Your task to perform on an android device: turn off sleep mode Image 0: 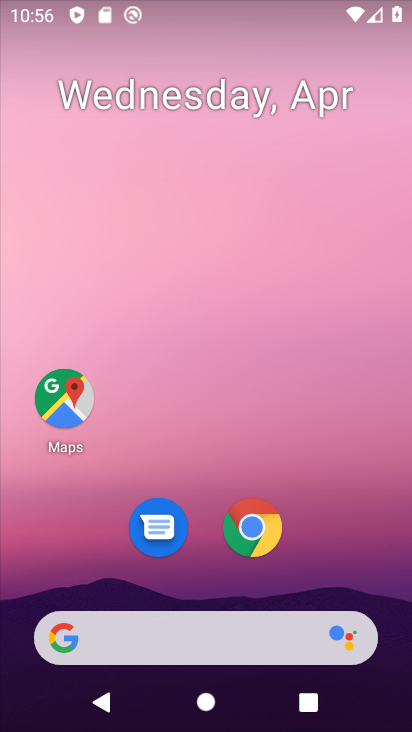
Step 0: drag from (187, 549) to (200, 149)
Your task to perform on an android device: turn off sleep mode Image 1: 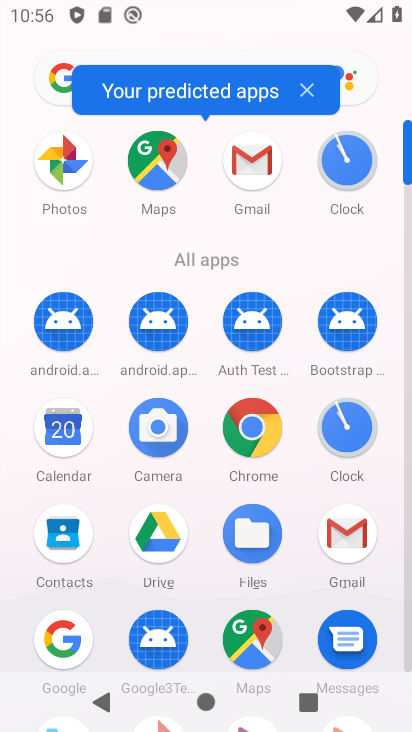
Step 1: drag from (182, 575) to (138, 148)
Your task to perform on an android device: turn off sleep mode Image 2: 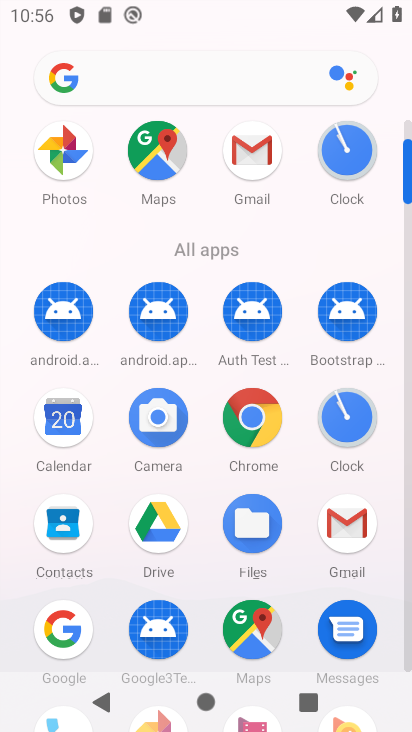
Step 2: drag from (208, 690) to (212, 358)
Your task to perform on an android device: turn off sleep mode Image 3: 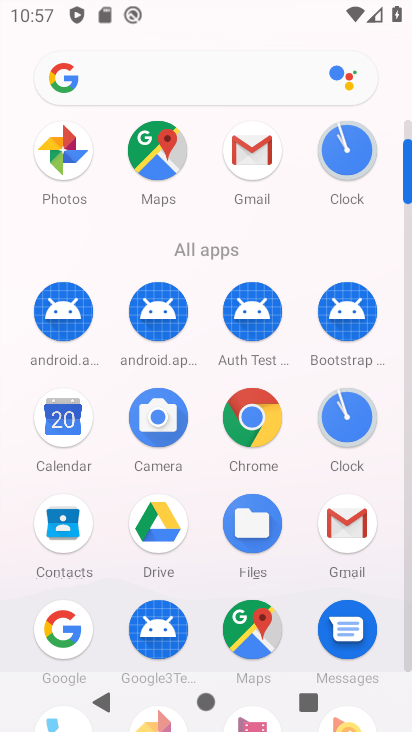
Step 3: drag from (110, 599) to (139, 276)
Your task to perform on an android device: turn off sleep mode Image 4: 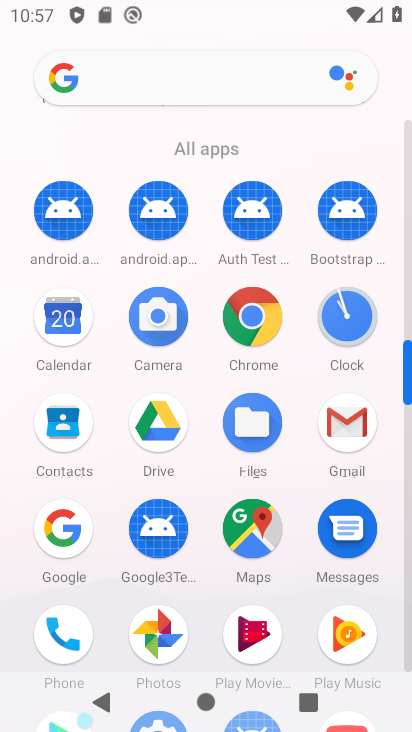
Step 4: drag from (208, 652) to (280, 224)
Your task to perform on an android device: turn off sleep mode Image 5: 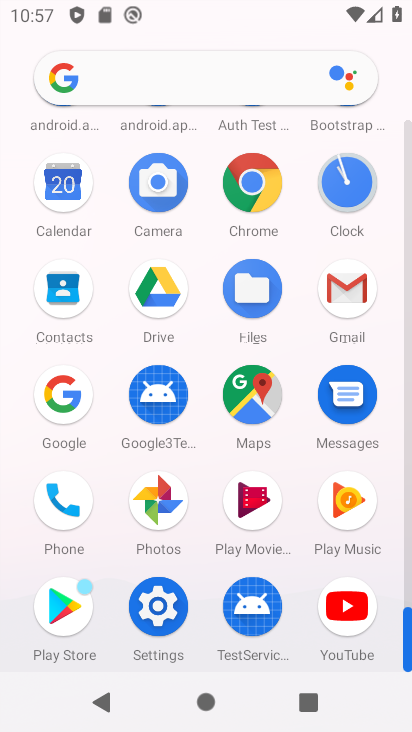
Step 5: click (140, 601)
Your task to perform on an android device: turn off sleep mode Image 6: 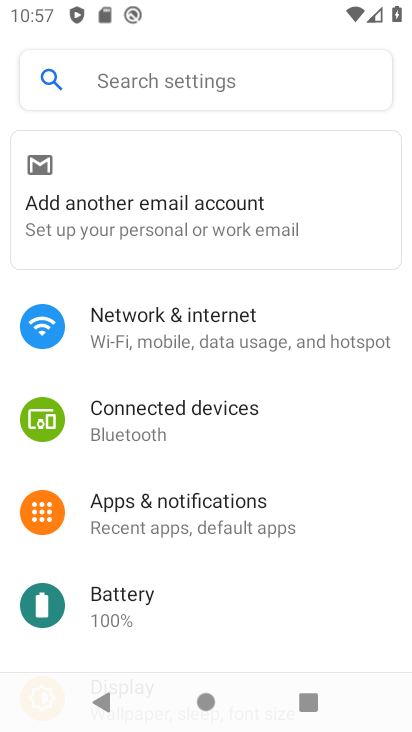
Step 6: drag from (242, 595) to (269, 335)
Your task to perform on an android device: turn off sleep mode Image 7: 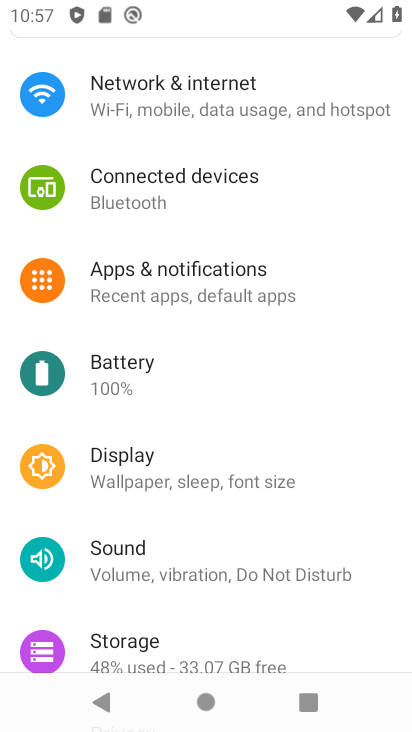
Step 7: click (193, 485)
Your task to perform on an android device: turn off sleep mode Image 8: 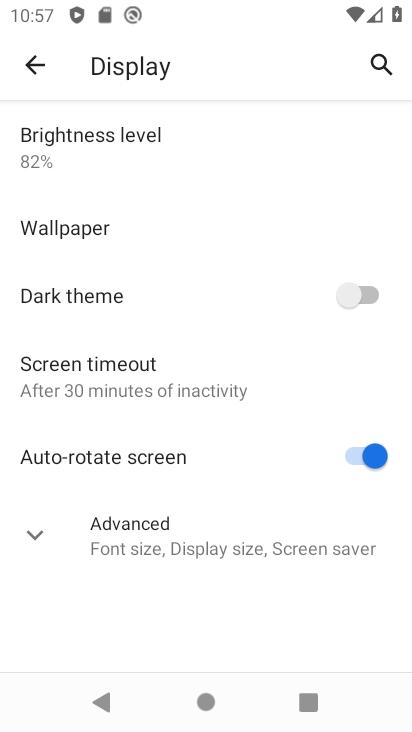
Step 8: click (141, 372)
Your task to perform on an android device: turn off sleep mode Image 9: 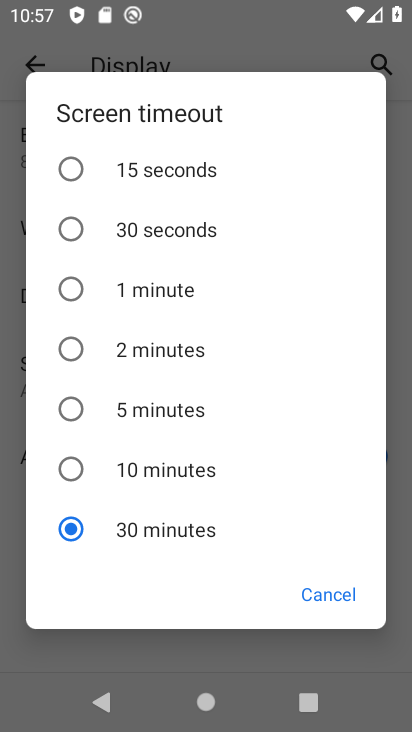
Step 9: click (73, 168)
Your task to perform on an android device: turn off sleep mode Image 10: 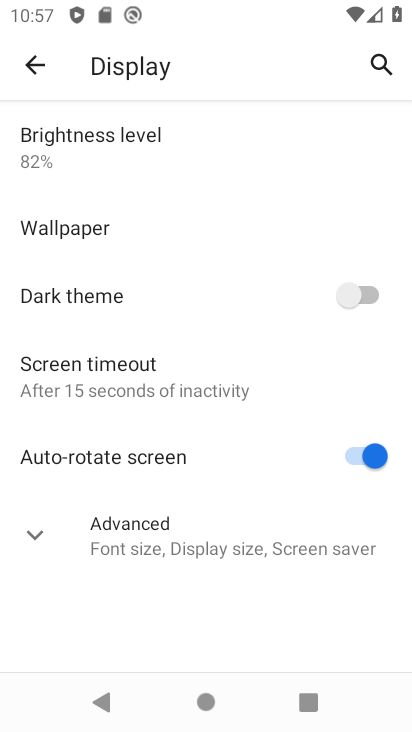
Step 10: task complete